Your task to perform on an android device: Go to accessibility settings Image 0: 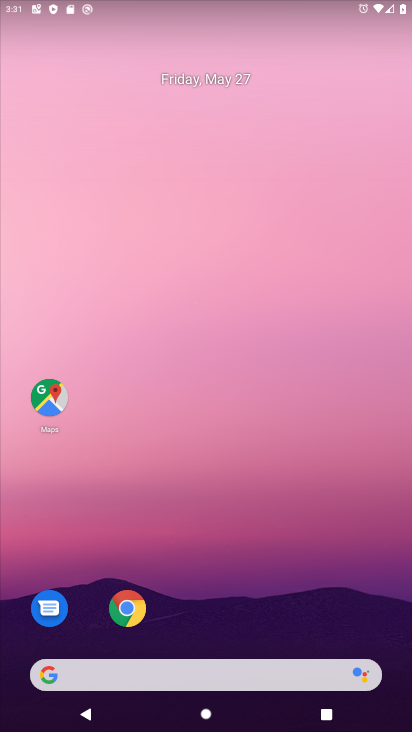
Step 0: drag from (187, 632) to (210, 281)
Your task to perform on an android device: Go to accessibility settings Image 1: 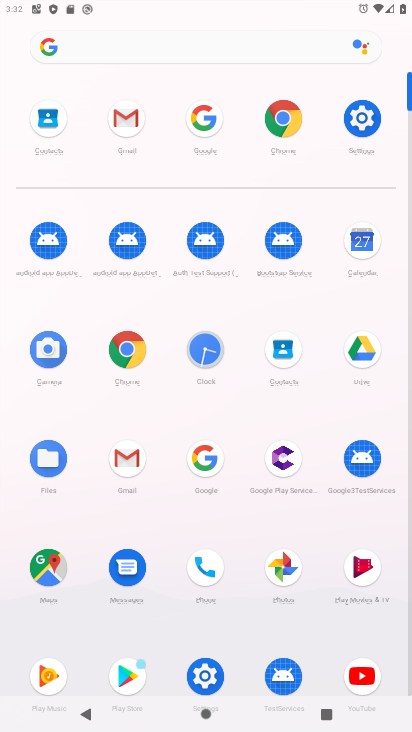
Step 1: click (353, 124)
Your task to perform on an android device: Go to accessibility settings Image 2: 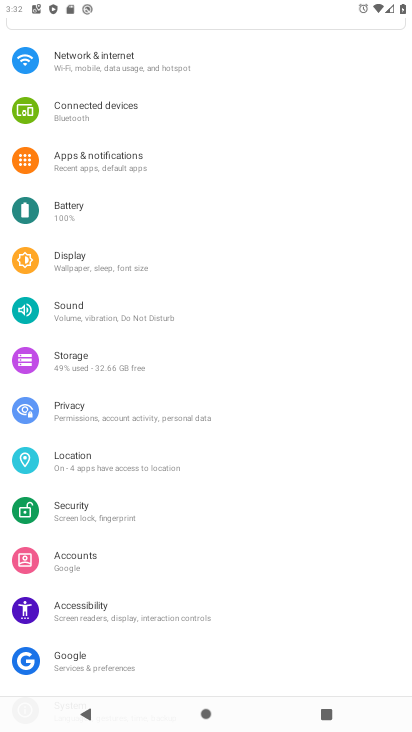
Step 2: click (112, 612)
Your task to perform on an android device: Go to accessibility settings Image 3: 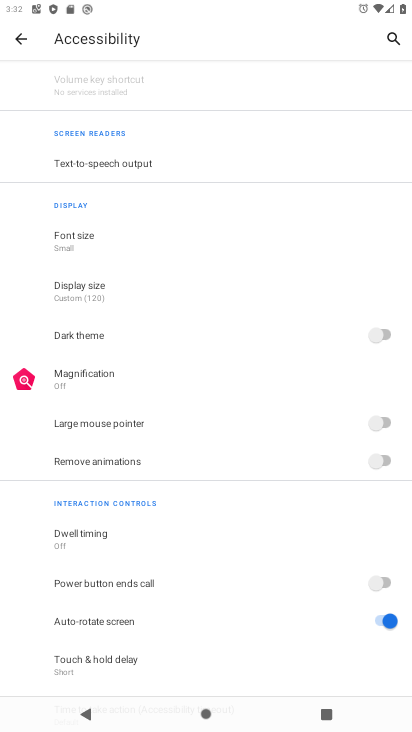
Step 3: task complete